Your task to perform on an android device: Open settings Image 0: 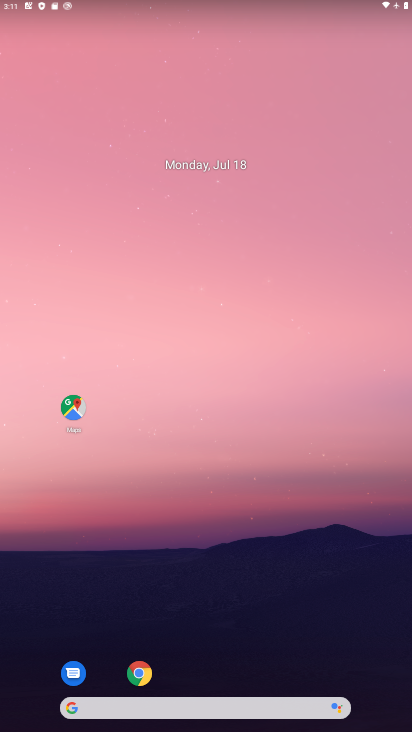
Step 0: drag from (189, 664) to (210, 123)
Your task to perform on an android device: Open settings Image 1: 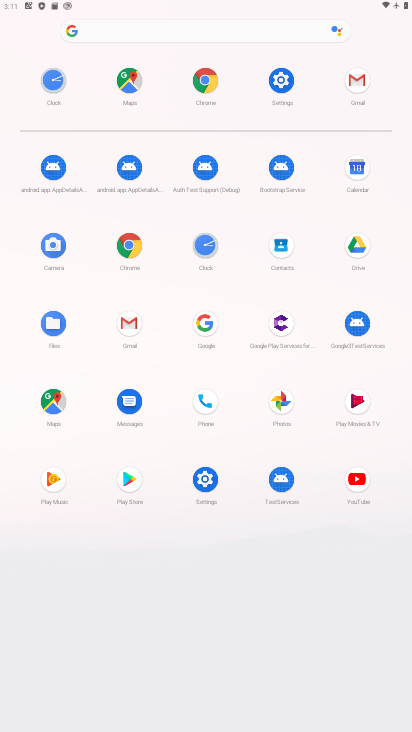
Step 1: click (277, 73)
Your task to perform on an android device: Open settings Image 2: 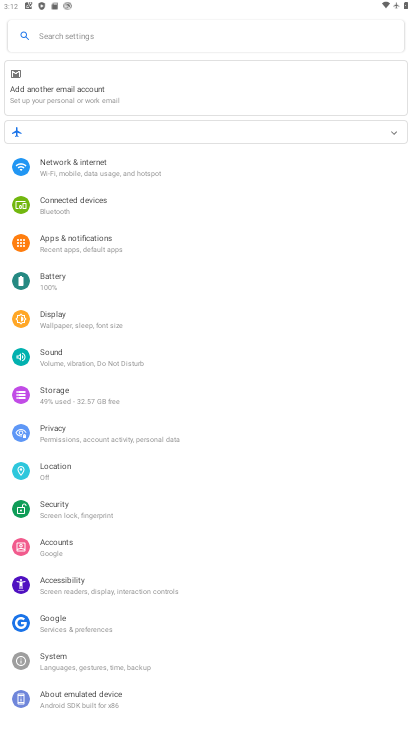
Step 2: task complete